Your task to perform on an android device: Open internet settings Image 0: 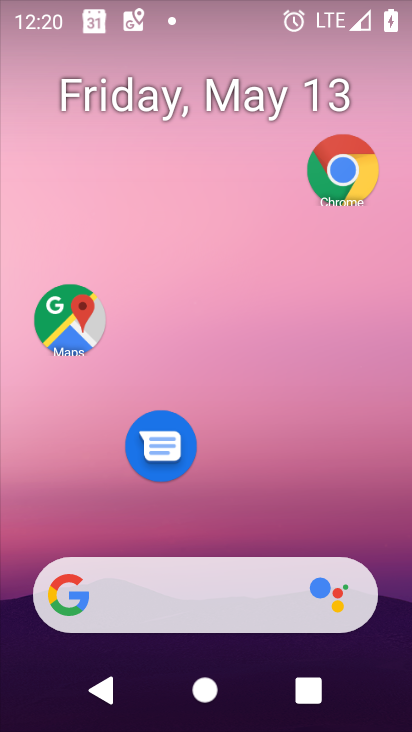
Step 0: drag from (243, 562) to (294, 5)
Your task to perform on an android device: Open internet settings Image 1: 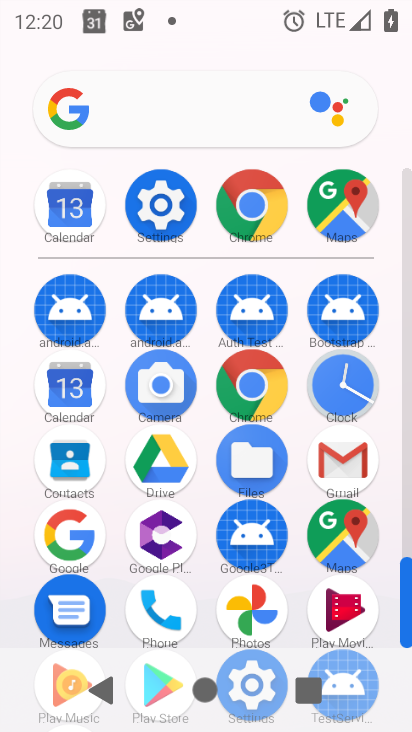
Step 1: click (159, 191)
Your task to perform on an android device: Open internet settings Image 2: 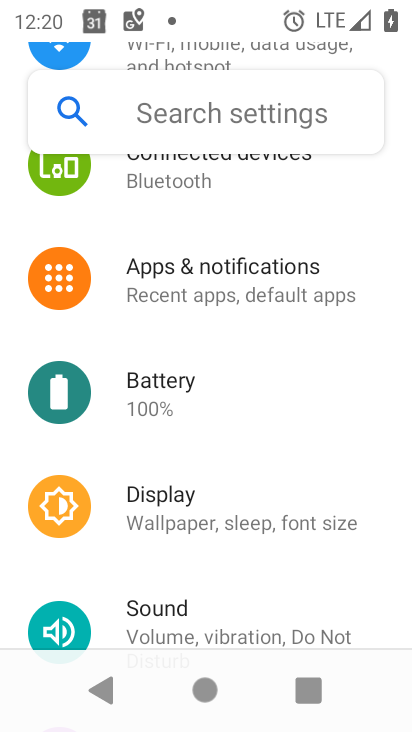
Step 2: drag from (195, 217) to (268, 729)
Your task to perform on an android device: Open internet settings Image 3: 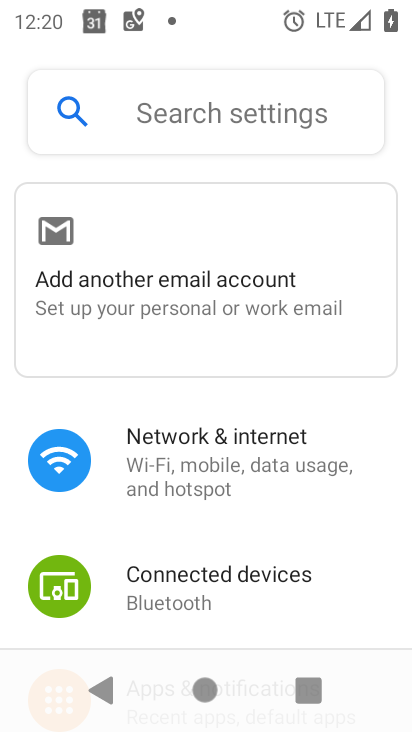
Step 3: click (245, 478)
Your task to perform on an android device: Open internet settings Image 4: 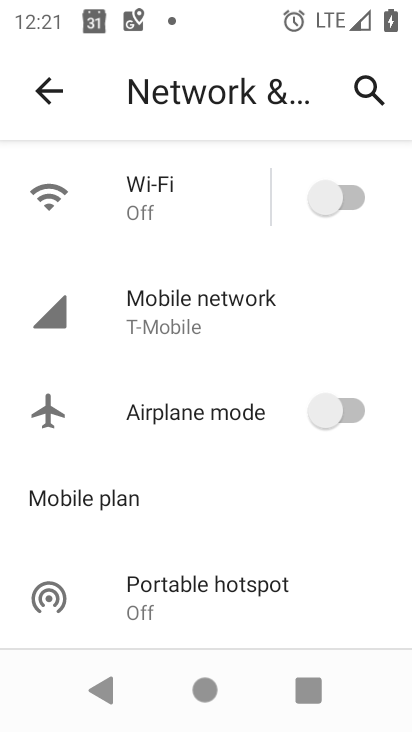
Step 4: click (208, 334)
Your task to perform on an android device: Open internet settings Image 5: 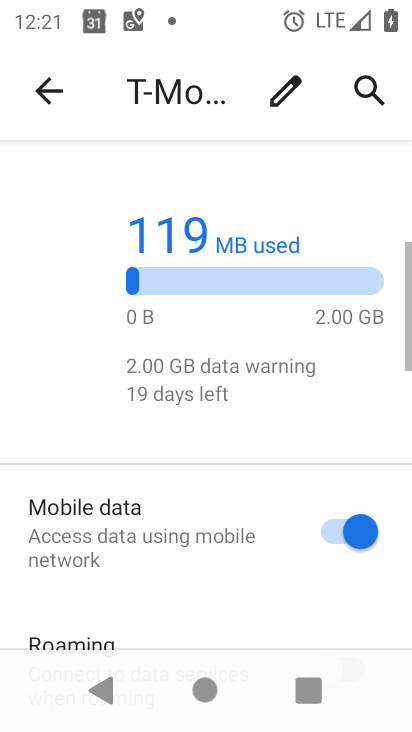
Step 5: task complete